Your task to perform on an android device: turn pop-ups off in chrome Image 0: 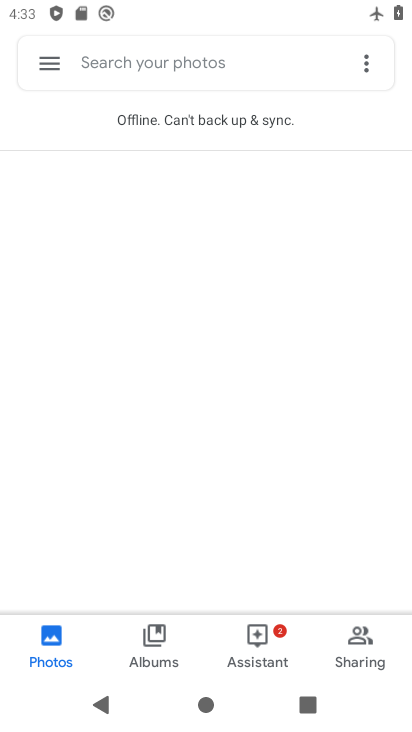
Step 0: press home button
Your task to perform on an android device: turn pop-ups off in chrome Image 1: 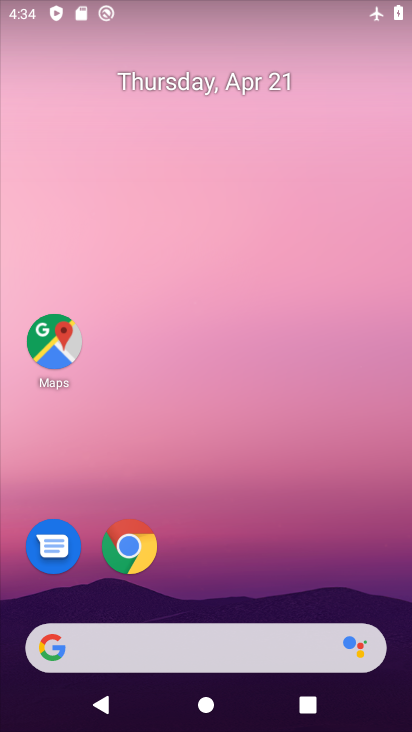
Step 1: click (129, 544)
Your task to perform on an android device: turn pop-ups off in chrome Image 2: 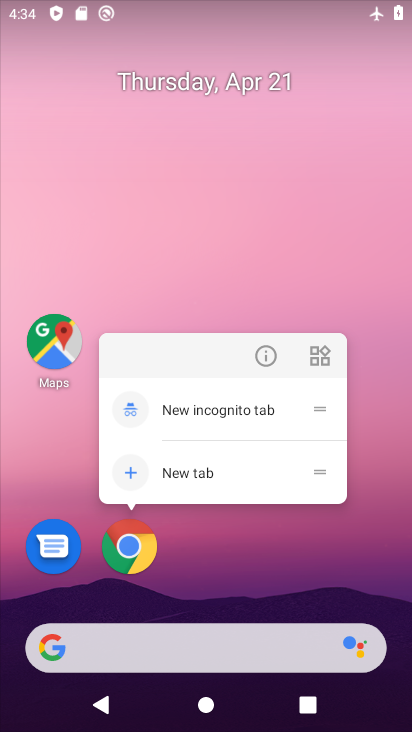
Step 2: click (131, 541)
Your task to perform on an android device: turn pop-ups off in chrome Image 3: 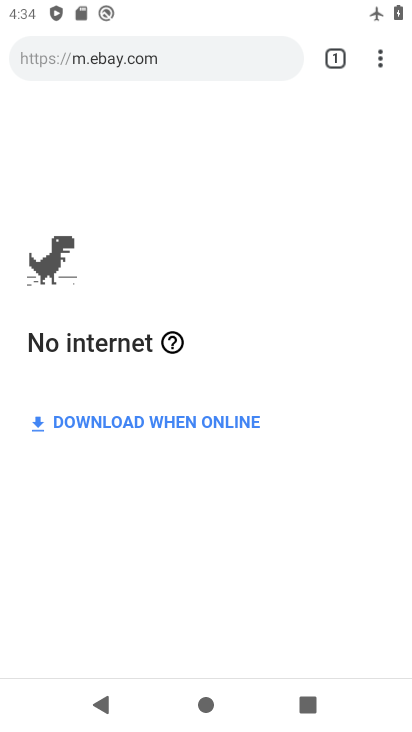
Step 3: click (380, 56)
Your task to perform on an android device: turn pop-ups off in chrome Image 4: 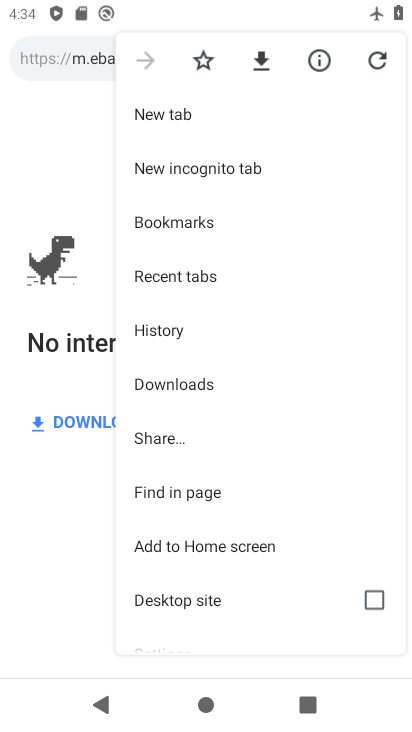
Step 4: drag from (202, 568) to (246, 235)
Your task to perform on an android device: turn pop-ups off in chrome Image 5: 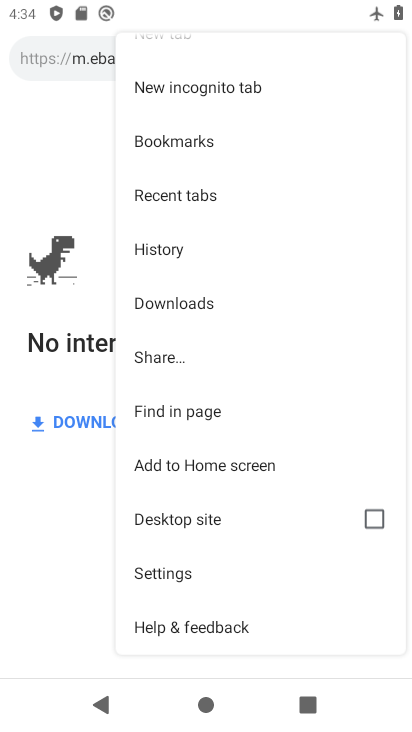
Step 5: click (181, 581)
Your task to perform on an android device: turn pop-ups off in chrome Image 6: 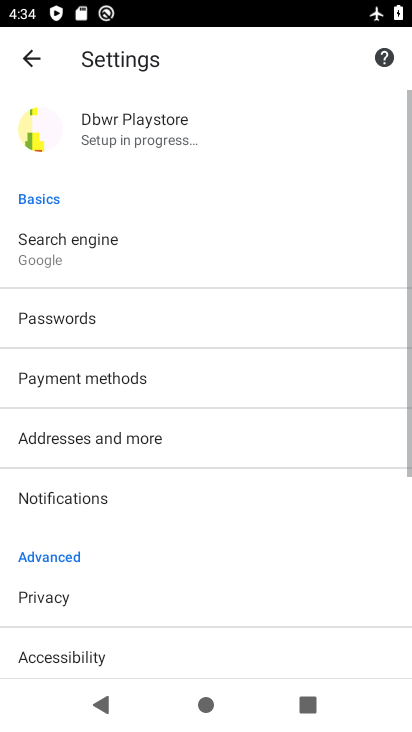
Step 6: drag from (143, 594) to (150, 220)
Your task to perform on an android device: turn pop-ups off in chrome Image 7: 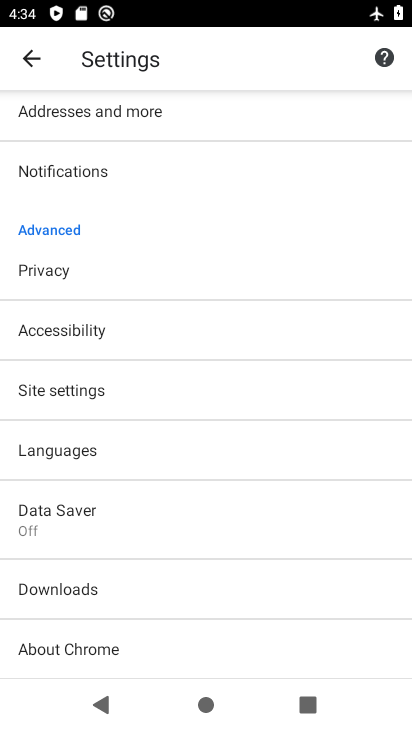
Step 7: click (85, 402)
Your task to perform on an android device: turn pop-ups off in chrome Image 8: 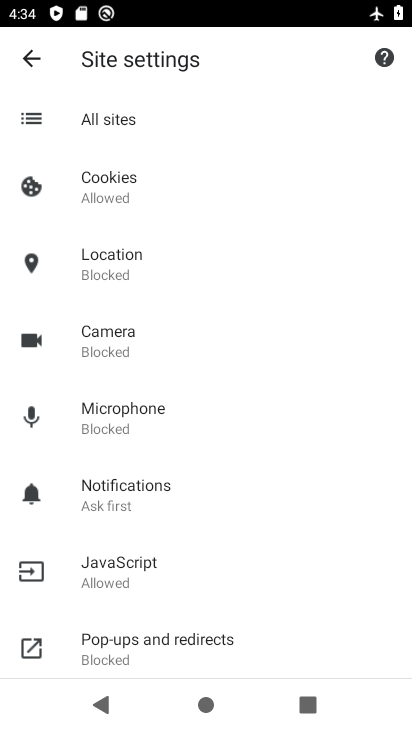
Step 8: click (183, 643)
Your task to perform on an android device: turn pop-ups off in chrome Image 9: 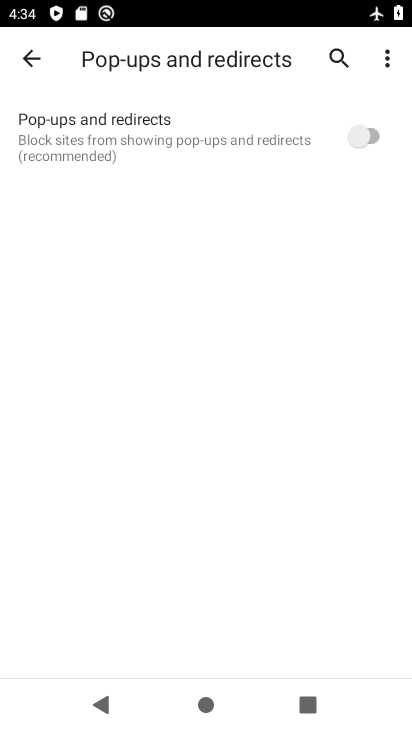
Step 9: task complete